Your task to perform on an android device: Open ESPN.com Image 0: 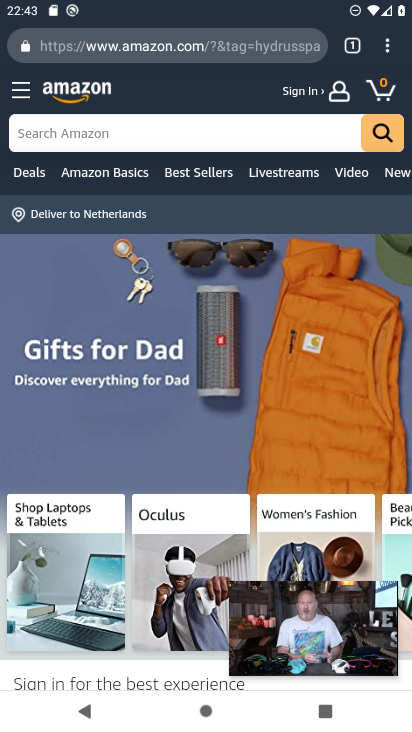
Step 0: click (204, 46)
Your task to perform on an android device: Open ESPN.com Image 1: 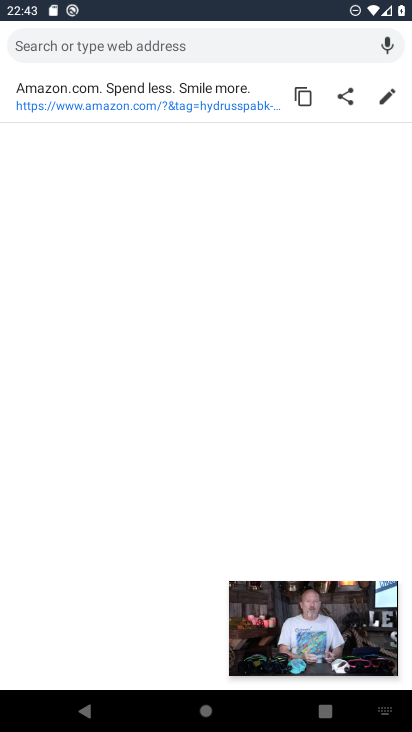
Step 1: type "espn.com"
Your task to perform on an android device: Open ESPN.com Image 2: 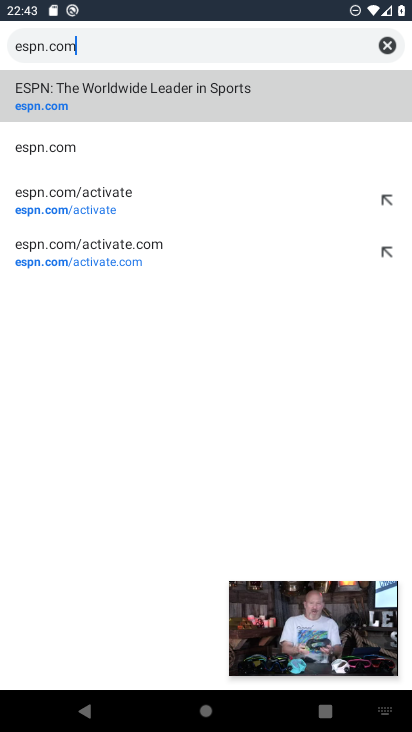
Step 2: click (69, 141)
Your task to perform on an android device: Open ESPN.com Image 3: 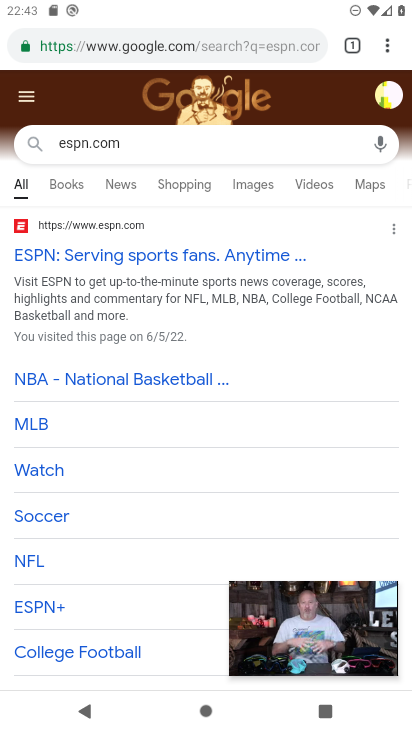
Step 3: task complete